Your task to perform on an android device: open app "Lyft - Rideshare, Bikes, Scooters & Transit" (install if not already installed), go to login, and select forgot password Image 0: 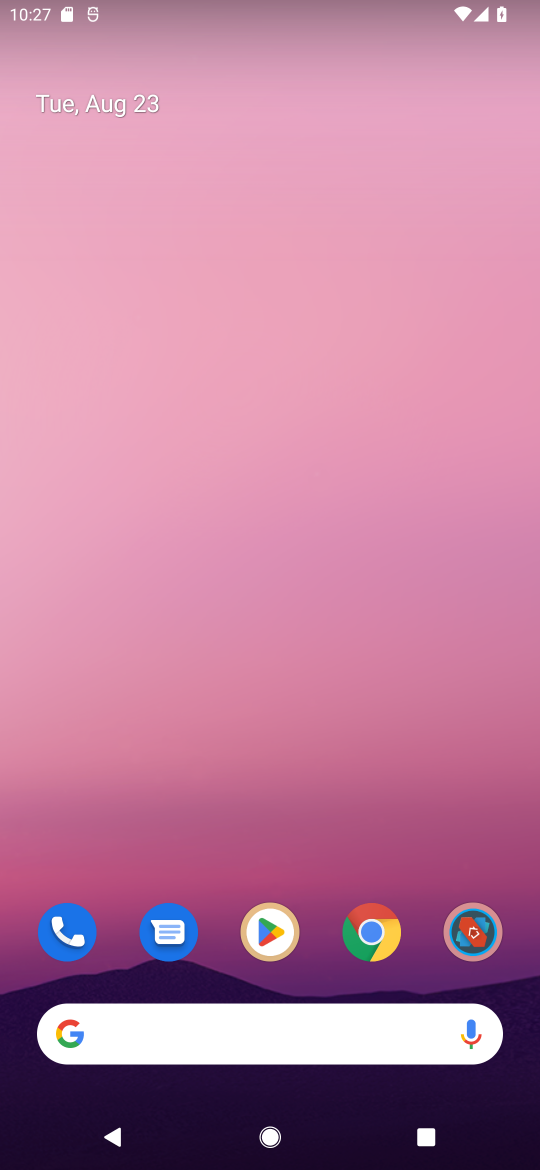
Step 0: click (289, 941)
Your task to perform on an android device: open app "Lyft - Rideshare, Bikes, Scooters & Transit" (install if not already installed), go to login, and select forgot password Image 1: 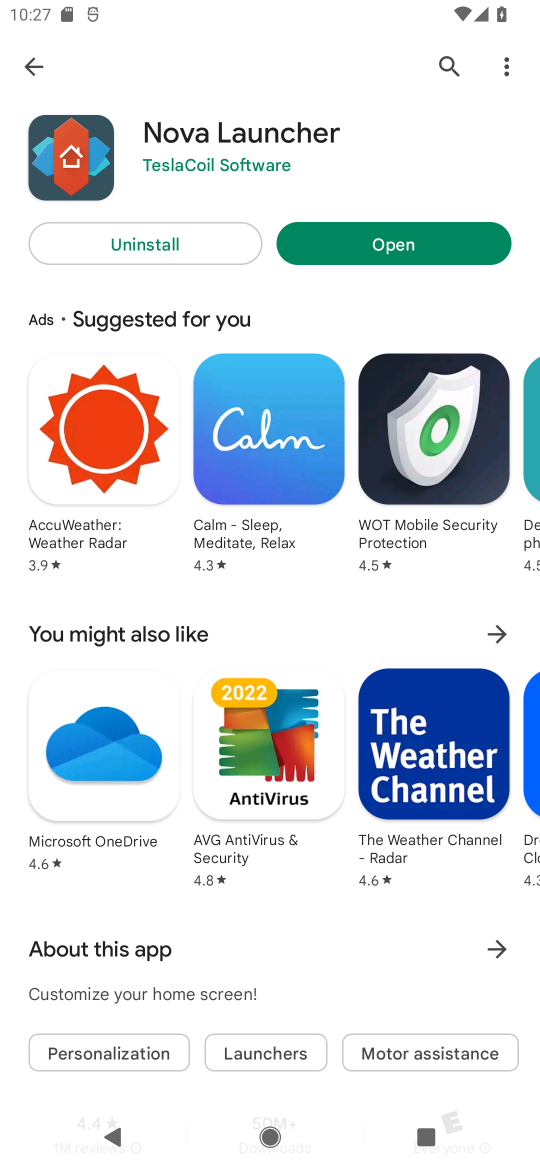
Step 1: click (462, 64)
Your task to perform on an android device: open app "Lyft - Rideshare, Bikes, Scooters & Transit" (install if not already installed), go to login, and select forgot password Image 2: 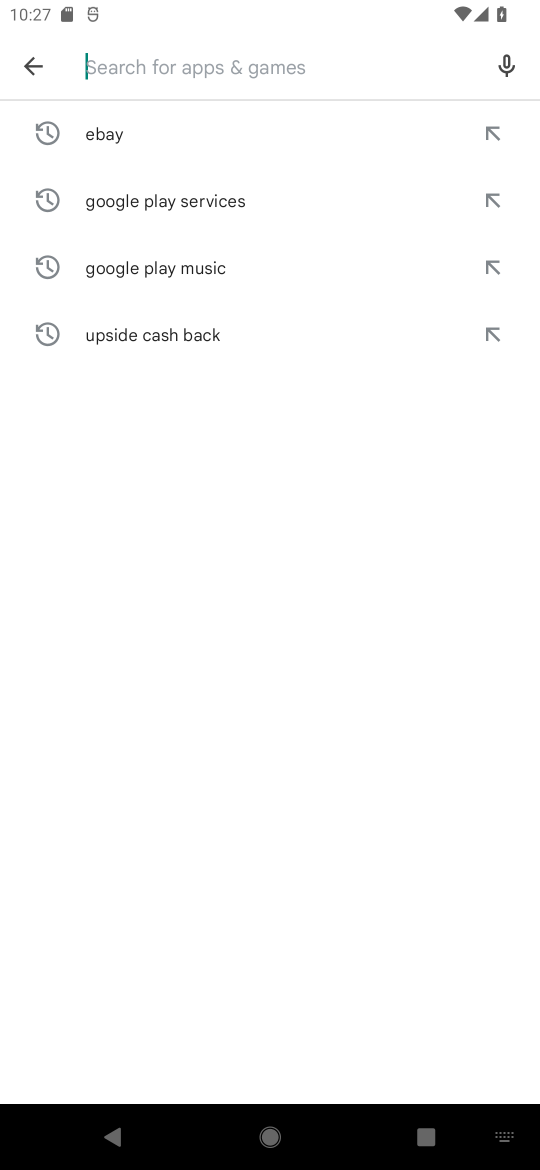
Step 2: click (253, 66)
Your task to perform on an android device: open app "Lyft - Rideshare, Bikes, Scooters & Transit" (install if not already installed), go to login, and select forgot password Image 3: 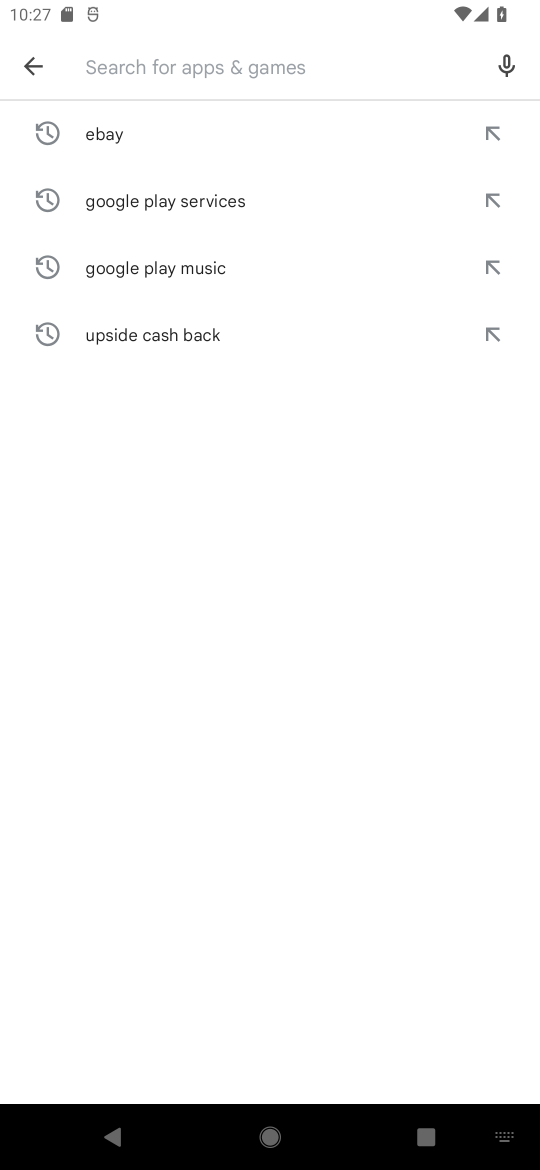
Step 3: type "lyft"
Your task to perform on an android device: open app "Lyft - Rideshare, Bikes, Scooters & Transit" (install if not already installed), go to login, and select forgot password Image 4: 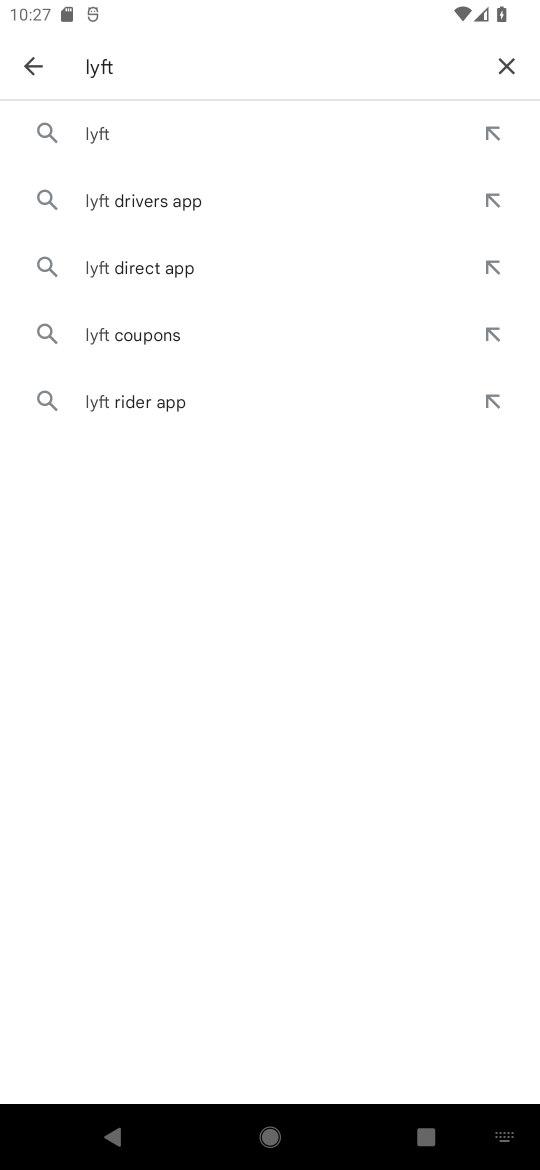
Step 4: click (115, 122)
Your task to perform on an android device: open app "Lyft - Rideshare, Bikes, Scooters & Transit" (install if not already installed), go to login, and select forgot password Image 5: 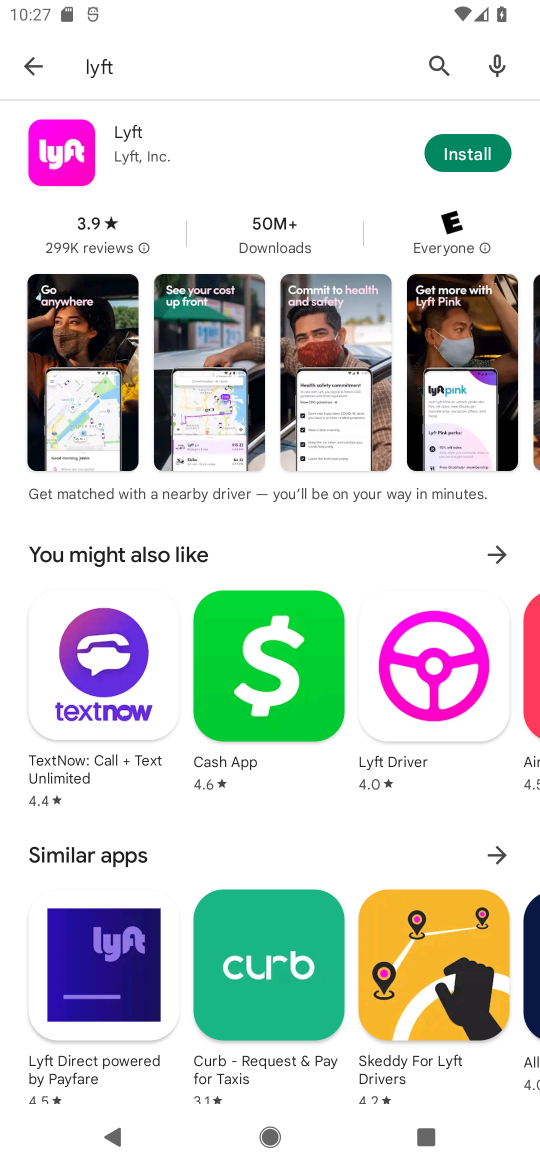
Step 5: click (470, 144)
Your task to perform on an android device: open app "Lyft - Rideshare, Bikes, Scooters & Transit" (install if not already installed), go to login, and select forgot password Image 6: 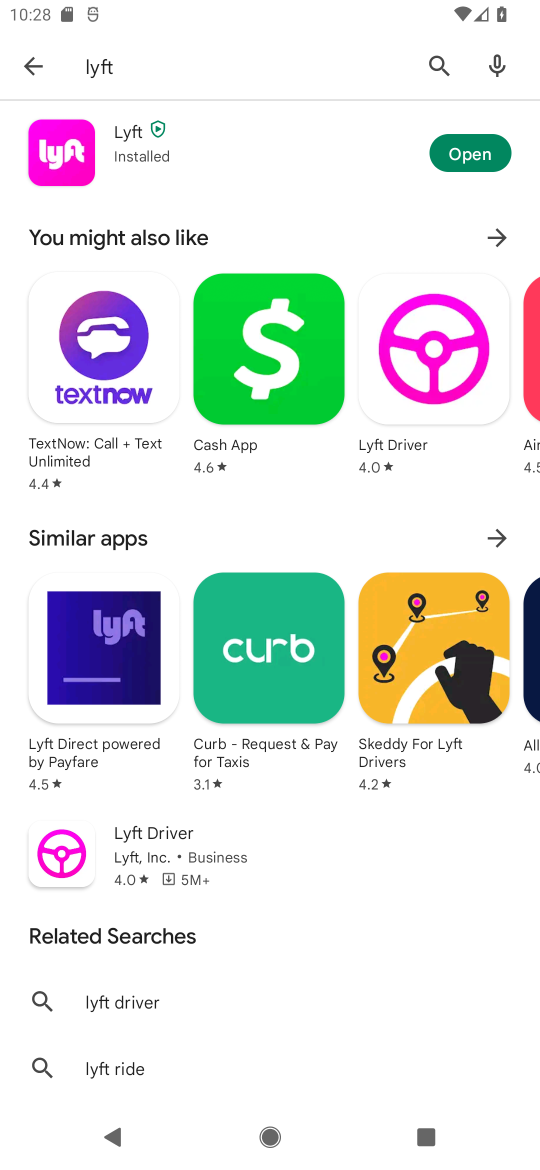
Step 6: click (478, 148)
Your task to perform on an android device: open app "Lyft - Rideshare, Bikes, Scooters & Transit" (install if not already installed), go to login, and select forgot password Image 7: 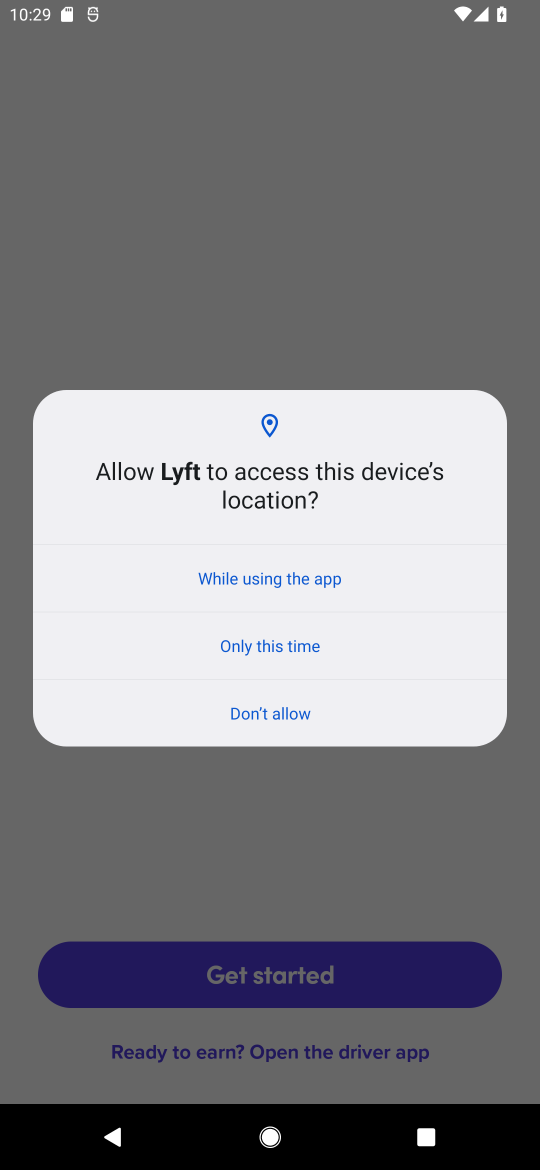
Step 7: click (261, 586)
Your task to perform on an android device: open app "Lyft - Rideshare, Bikes, Scooters & Transit" (install if not already installed), go to login, and select forgot password Image 8: 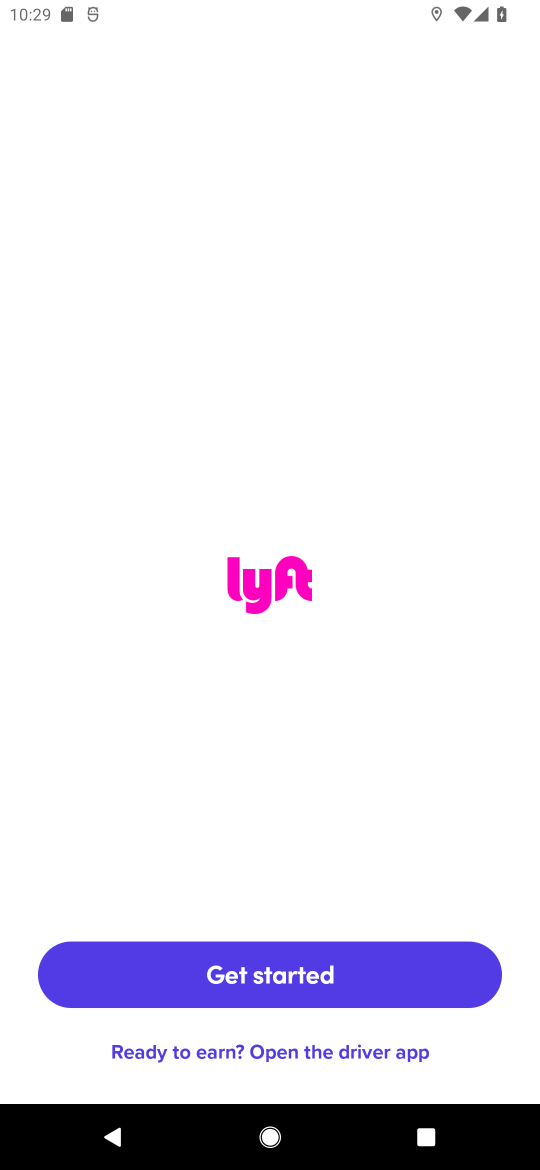
Step 8: click (270, 966)
Your task to perform on an android device: open app "Lyft - Rideshare, Bikes, Scooters & Transit" (install if not already installed), go to login, and select forgot password Image 9: 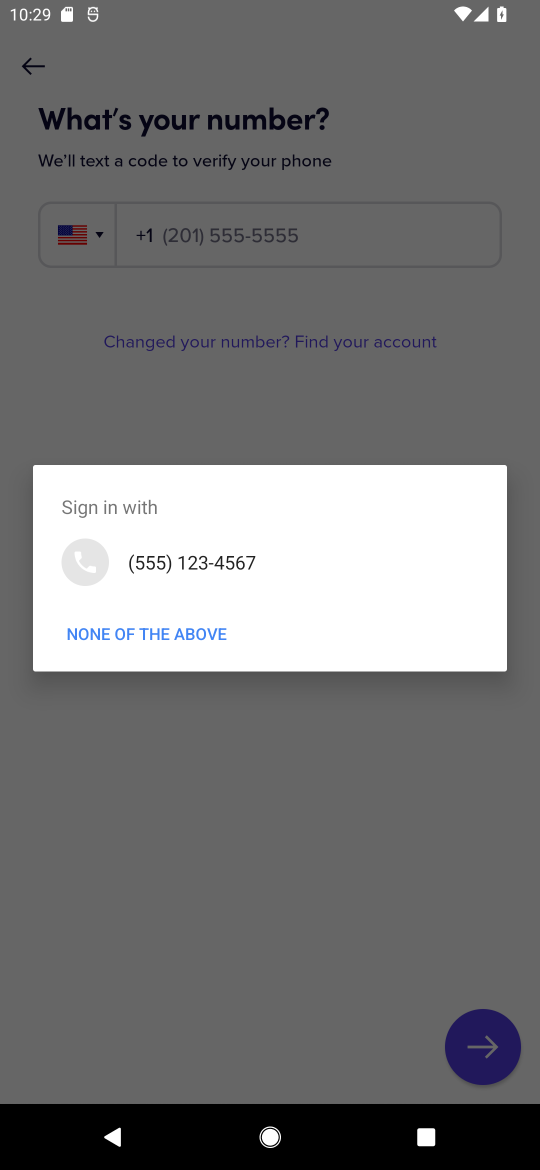
Step 9: task complete